Your task to perform on an android device: open app "PUBG MOBILE" (install if not already installed) Image 0: 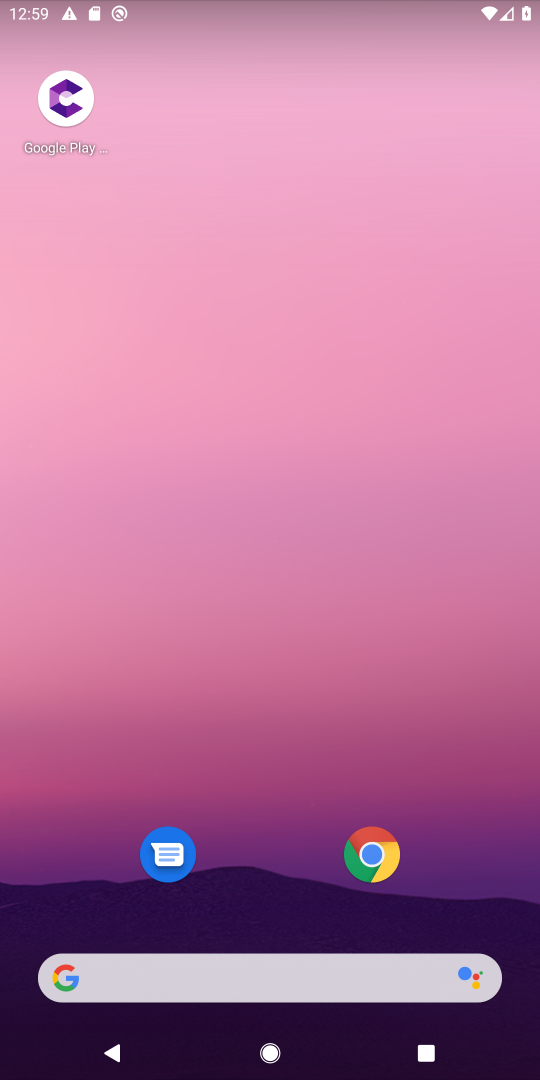
Step 0: drag from (288, 689) to (284, 364)
Your task to perform on an android device: open app "PUBG MOBILE" (install if not already installed) Image 1: 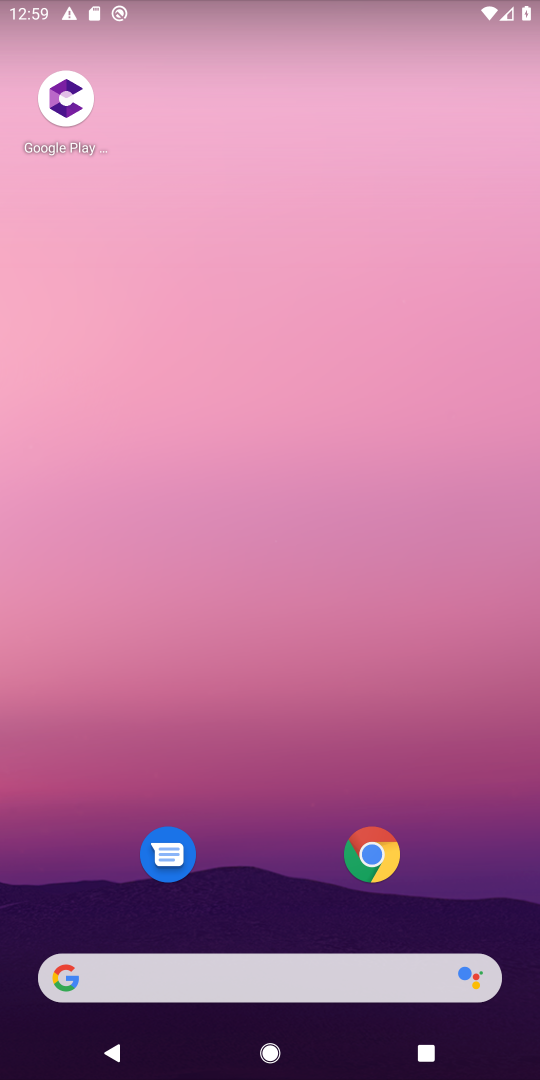
Step 1: drag from (283, 815) to (221, 59)
Your task to perform on an android device: open app "PUBG MOBILE" (install if not already installed) Image 2: 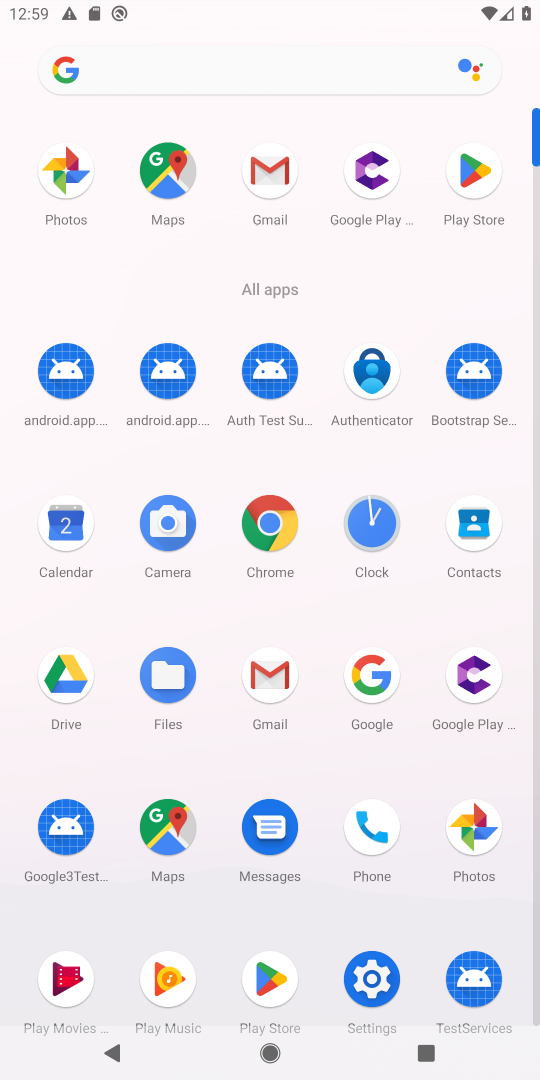
Step 2: click (473, 171)
Your task to perform on an android device: open app "PUBG MOBILE" (install if not already installed) Image 3: 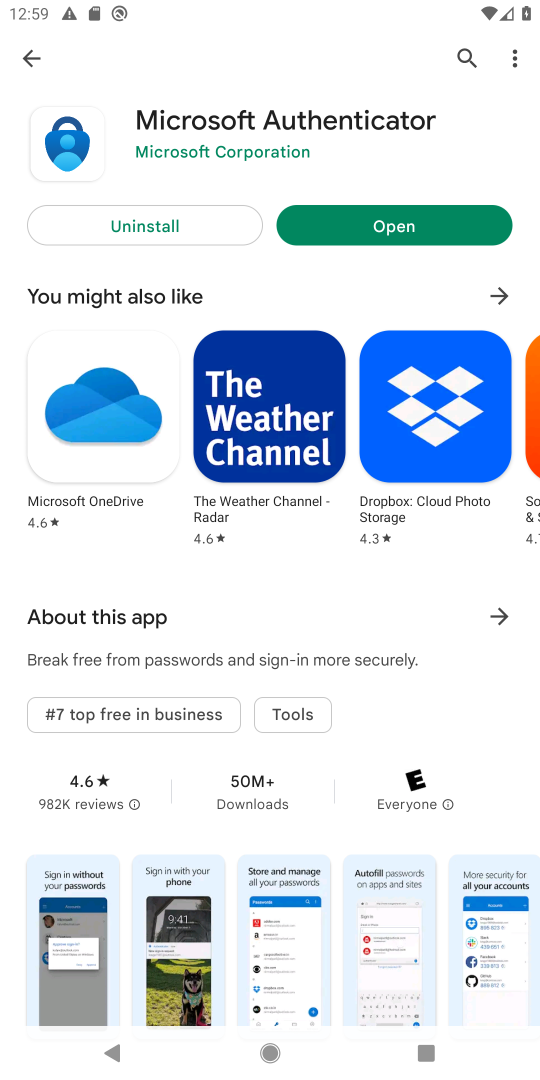
Step 3: click (458, 50)
Your task to perform on an android device: open app "PUBG MOBILE" (install if not already installed) Image 4: 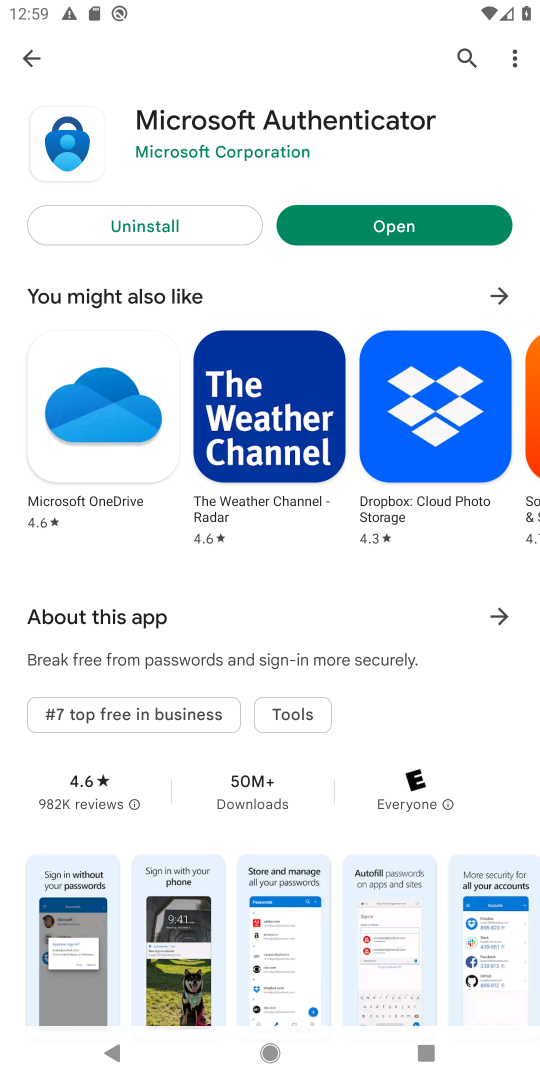
Step 4: click (465, 52)
Your task to perform on an android device: open app "PUBG MOBILE" (install if not already installed) Image 5: 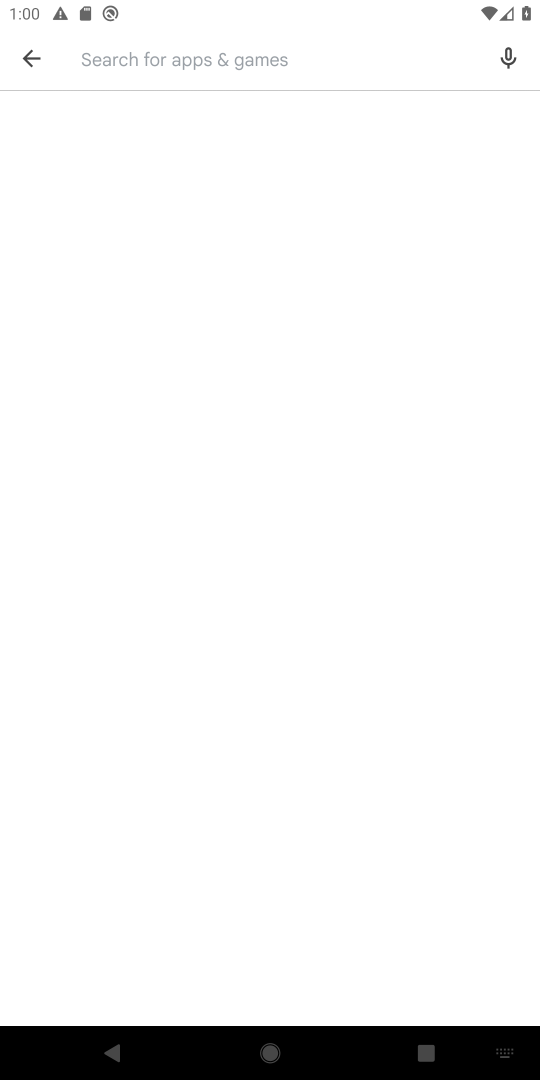
Step 5: type "PUBG MOBILE"
Your task to perform on an android device: open app "PUBG MOBILE" (install if not already installed) Image 6: 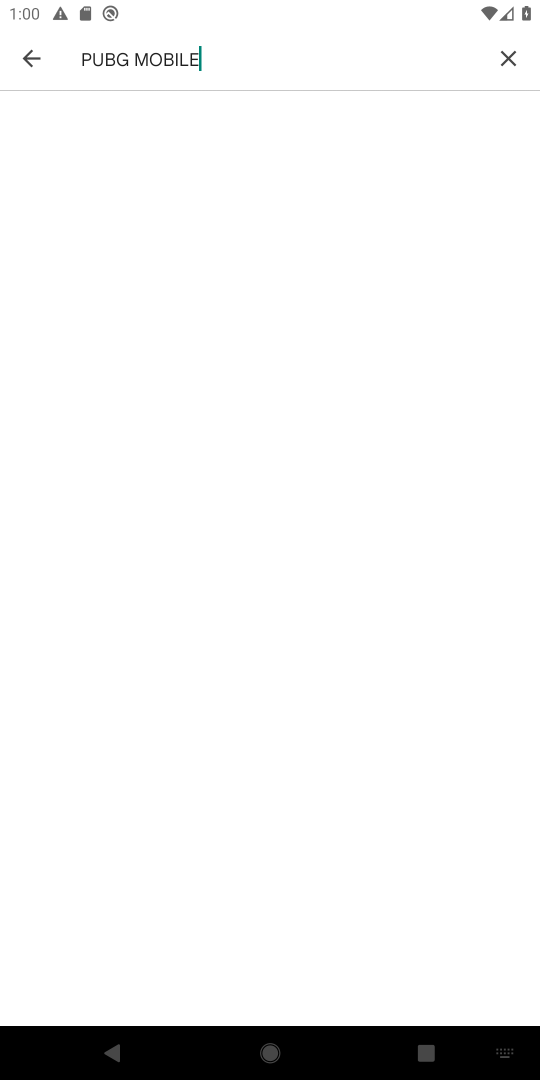
Step 6: type ""
Your task to perform on an android device: open app "PUBG MOBILE" (install if not already installed) Image 7: 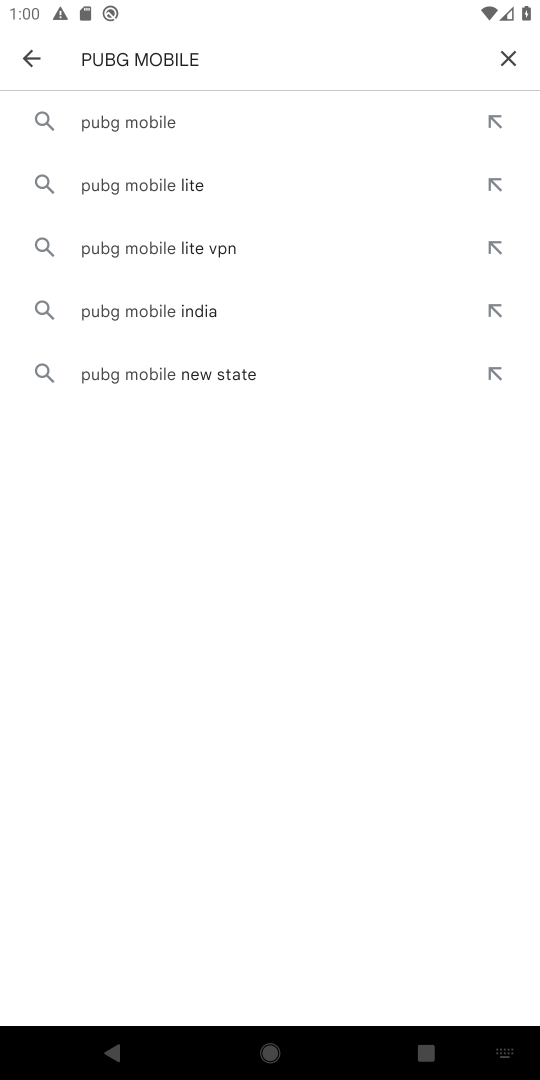
Step 7: click (132, 126)
Your task to perform on an android device: open app "PUBG MOBILE" (install if not already installed) Image 8: 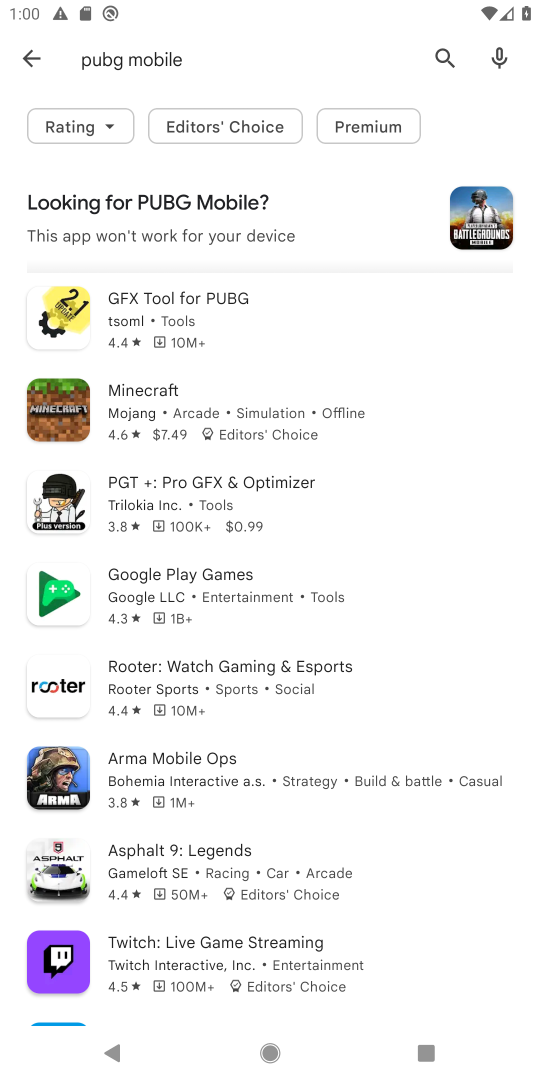
Step 8: task complete